Your task to perform on an android device: Search for seafood restaurants on Google Maps Image 0: 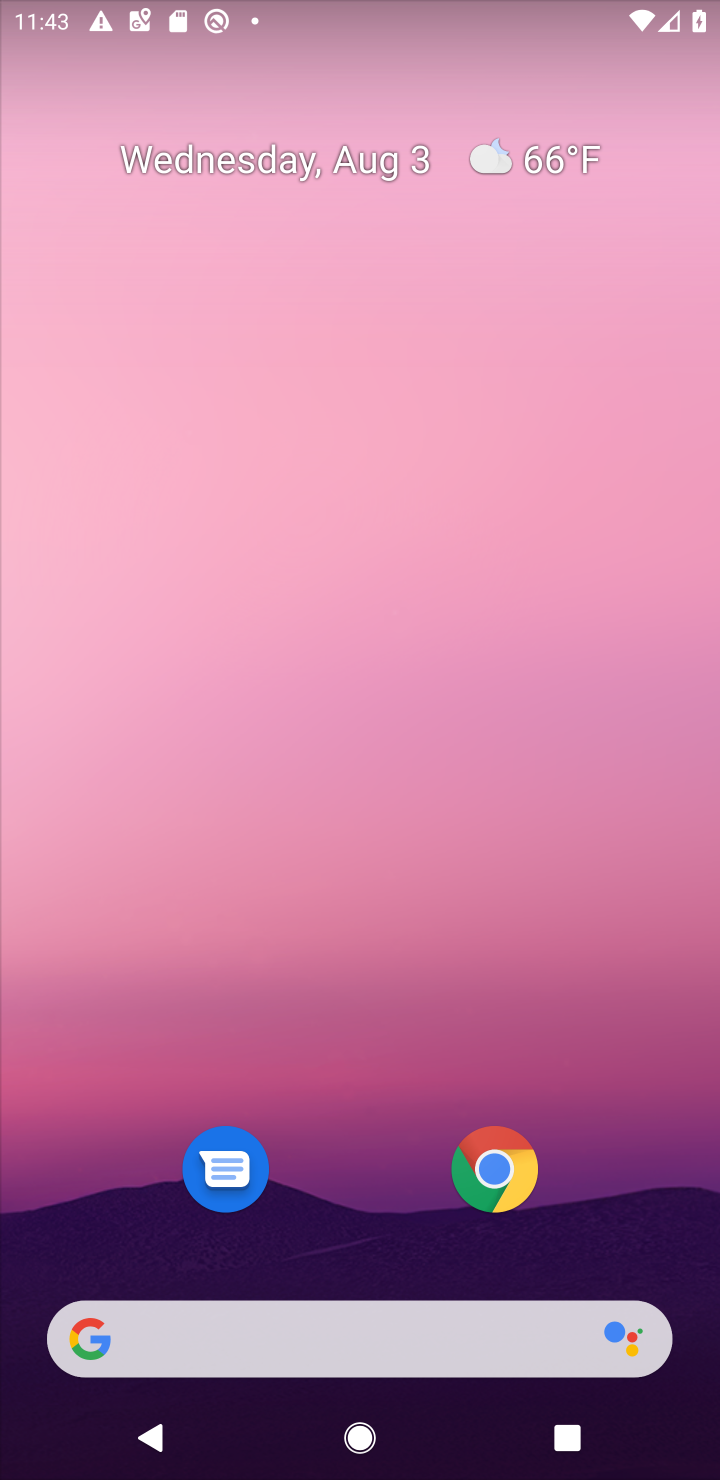
Step 0: drag from (329, 1168) to (258, 18)
Your task to perform on an android device: Search for seafood restaurants on Google Maps Image 1: 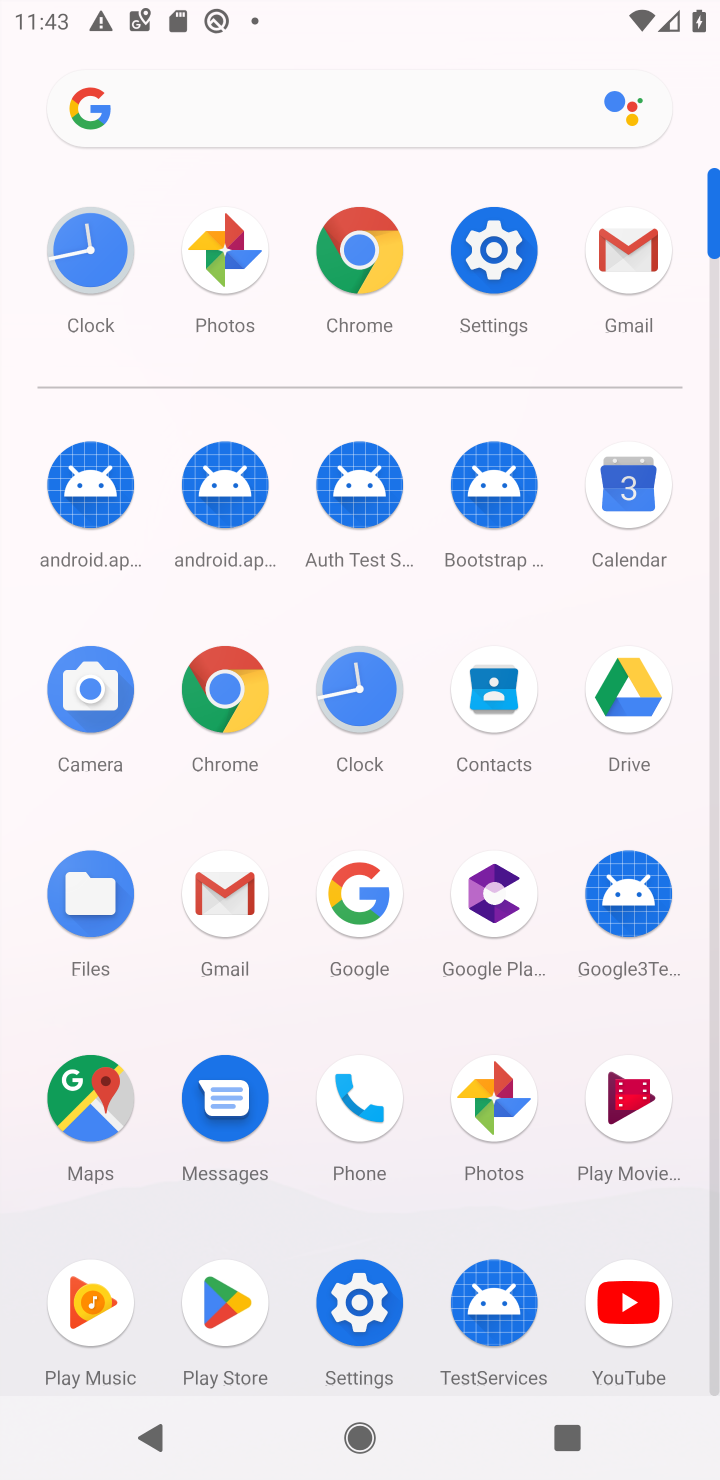
Step 1: click (85, 1106)
Your task to perform on an android device: Search for seafood restaurants on Google Maps Image 2: 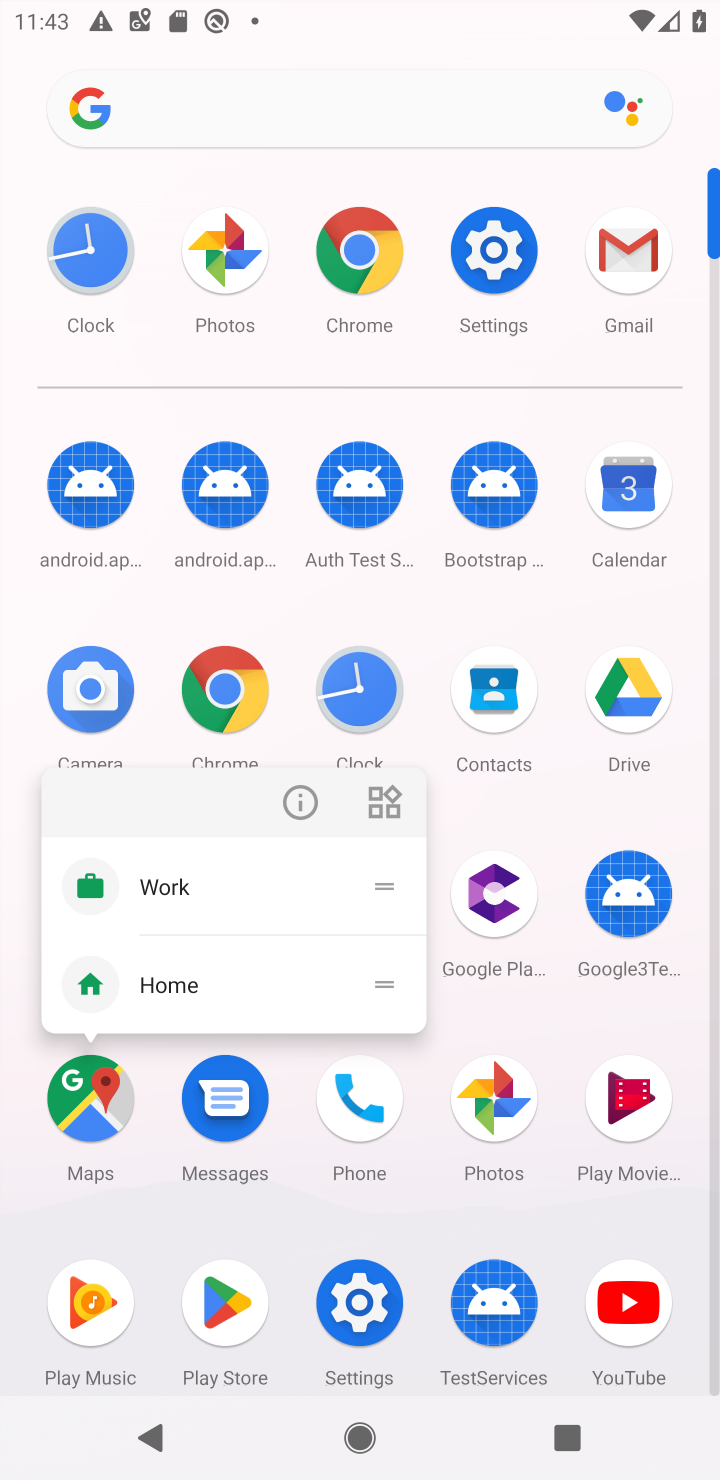
Step 2: click (85, 1104)
Your task to perform on an android device: Search for seafood restaurants on Google Maps Image 3: 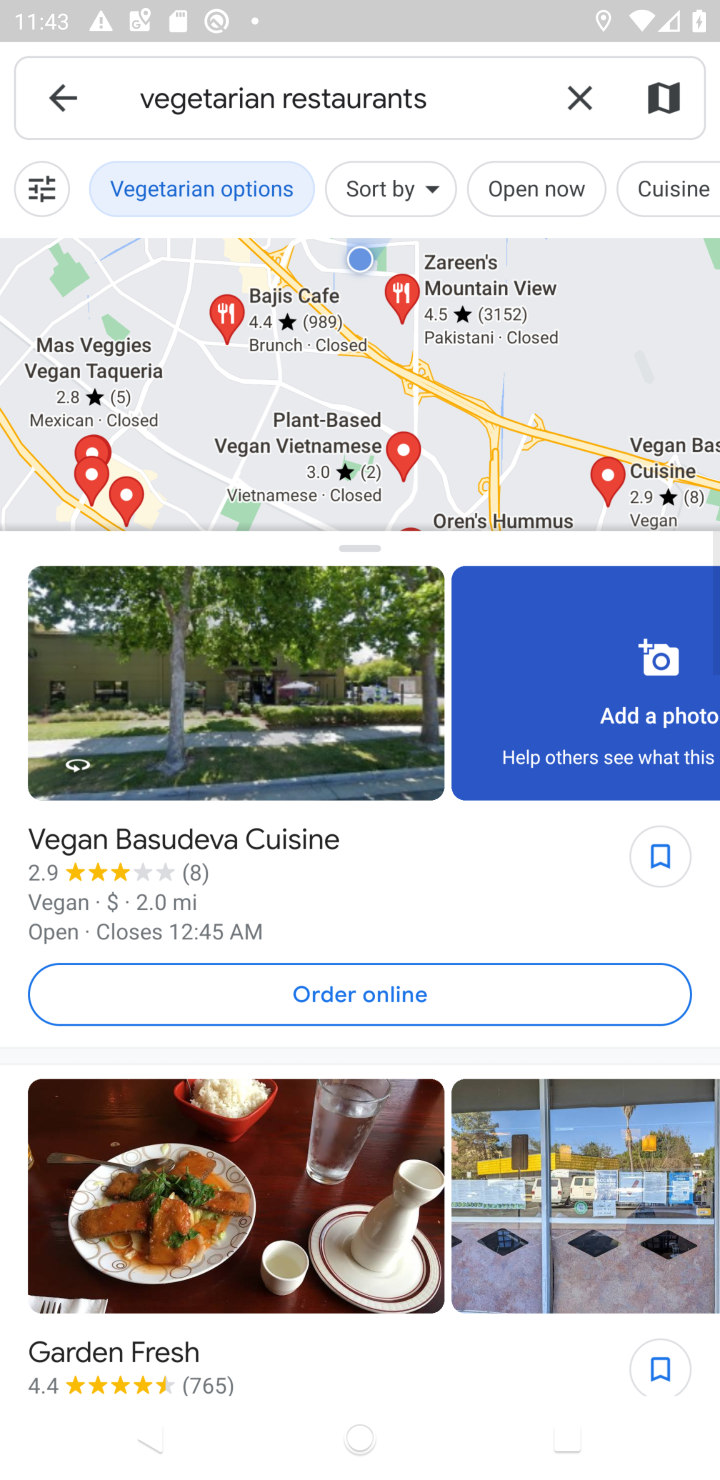
Step 3: click (575, 112)
Your task to perform on an android device: Search for seafood restaurants on Google Maps Image 4: 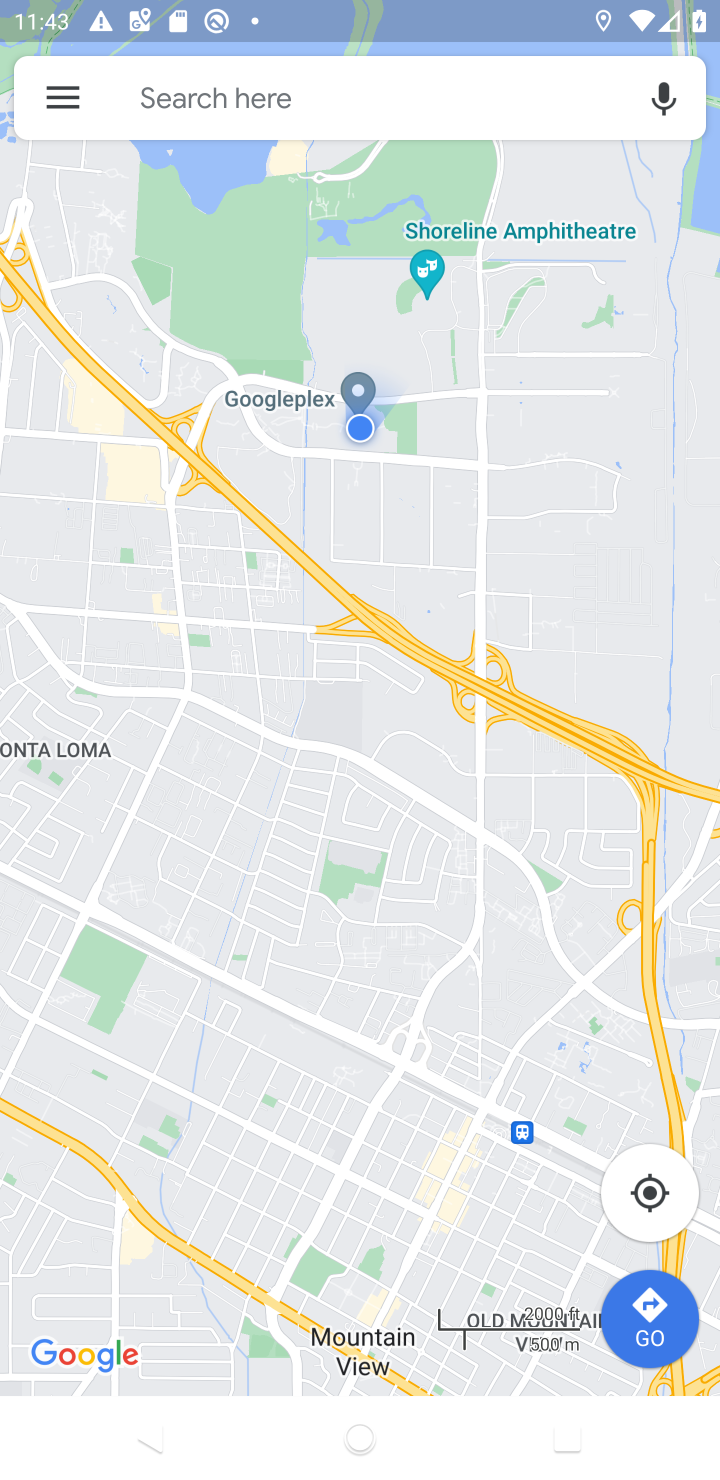
Step 4: click (204, 105)
Your task to perform on an android device: Search for seafood restaurants on Google Maps Image 5: 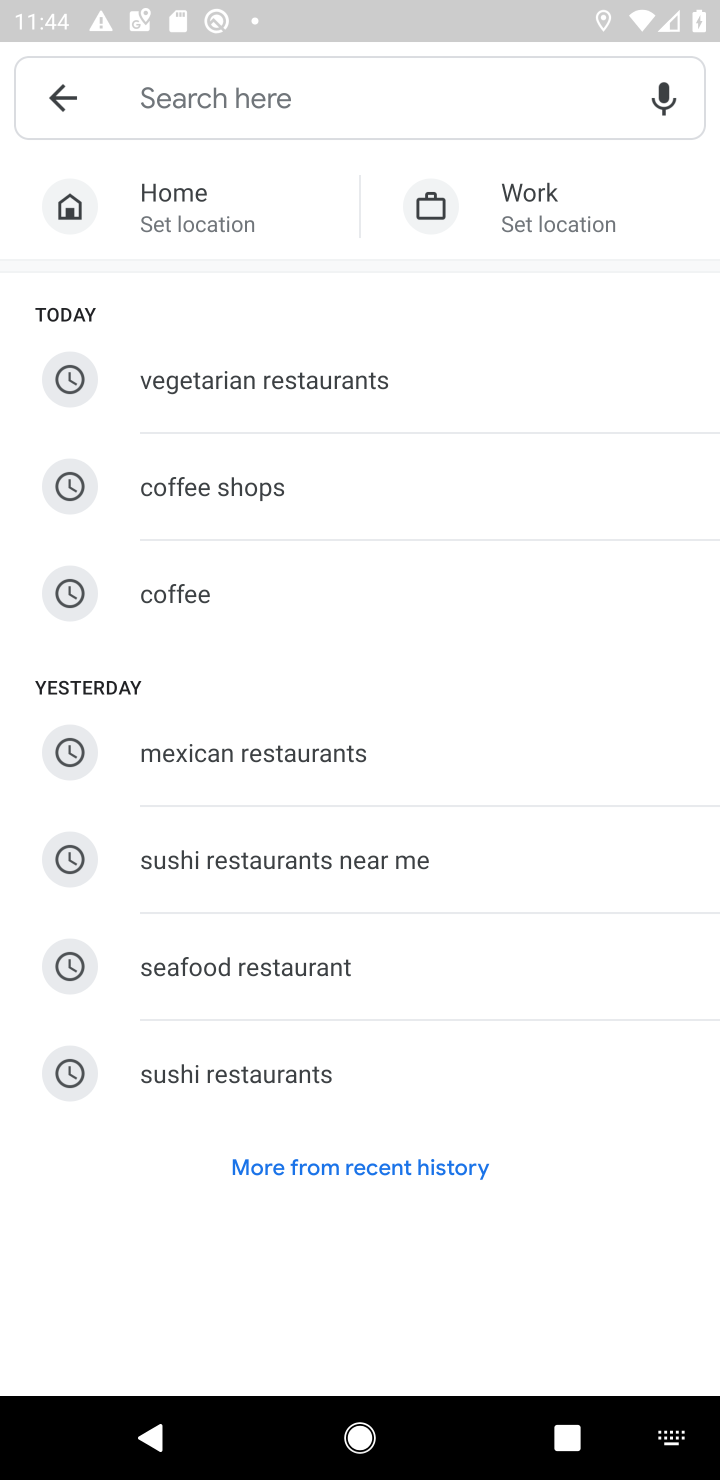
Step 5: click (264, 109)
Your task to perform on an android device: Search for seafood restaurants on Google Maps Image 6: 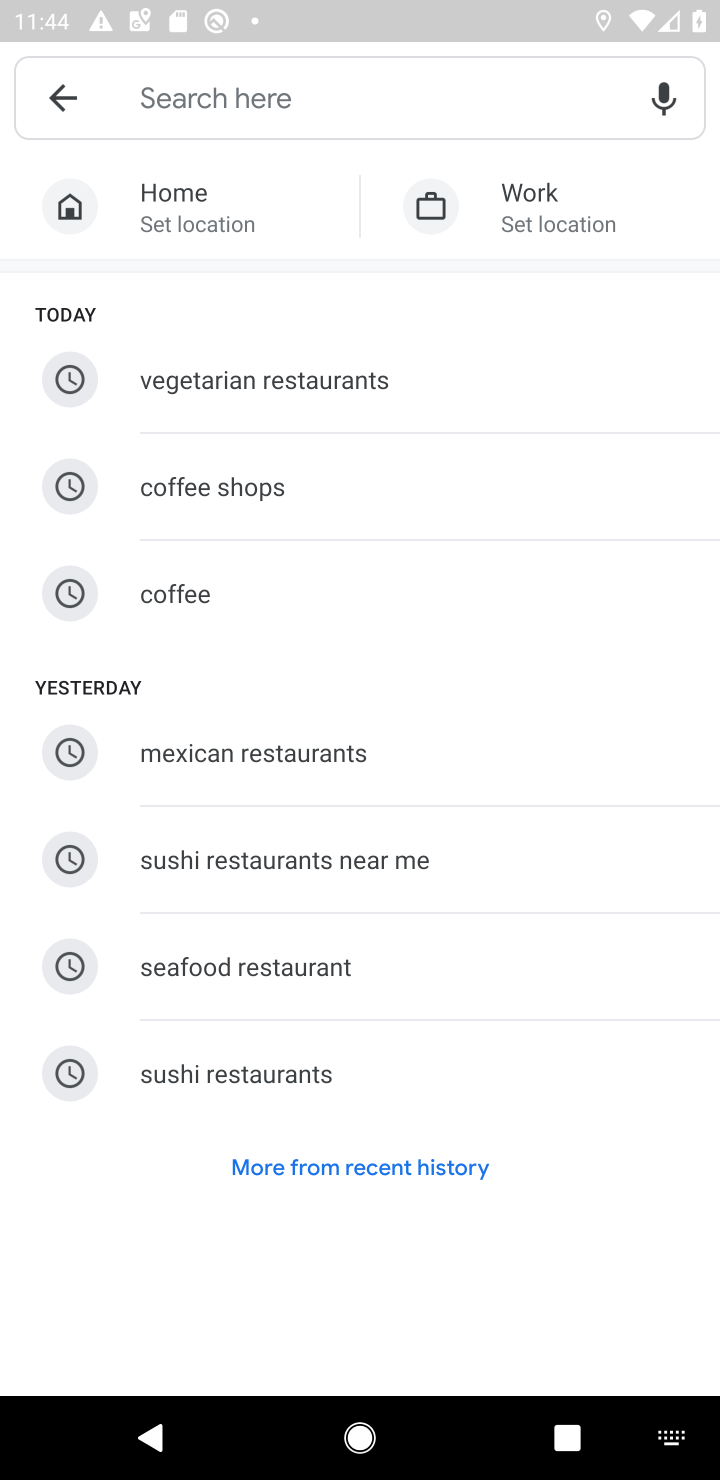
Step 6: type "seafood restaurants"
Your task to perform on an android device: Search for seafood restaurants on Google Maps Image 7: 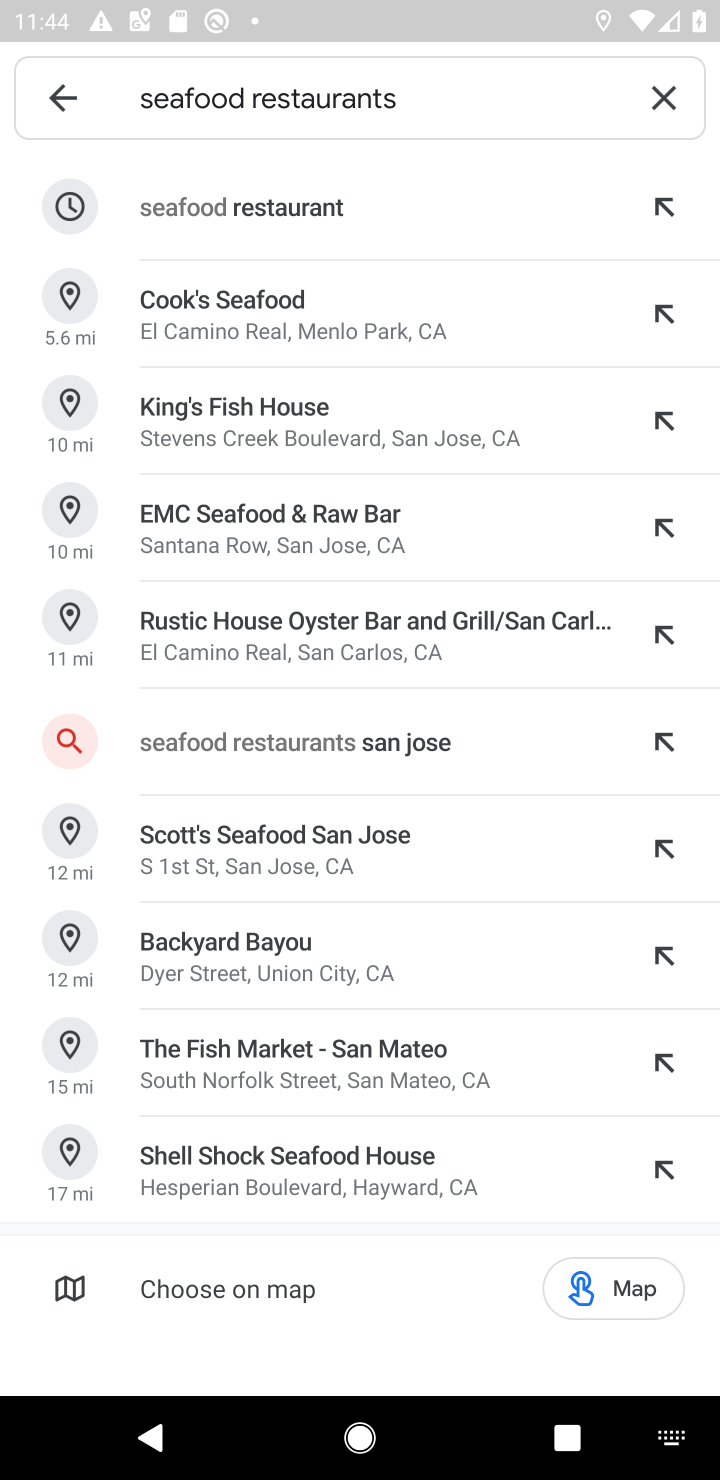
Step 7: click (176, 219)
Your task to perform on an android device: Search for seafood restaurants on Google Maps Image 8: 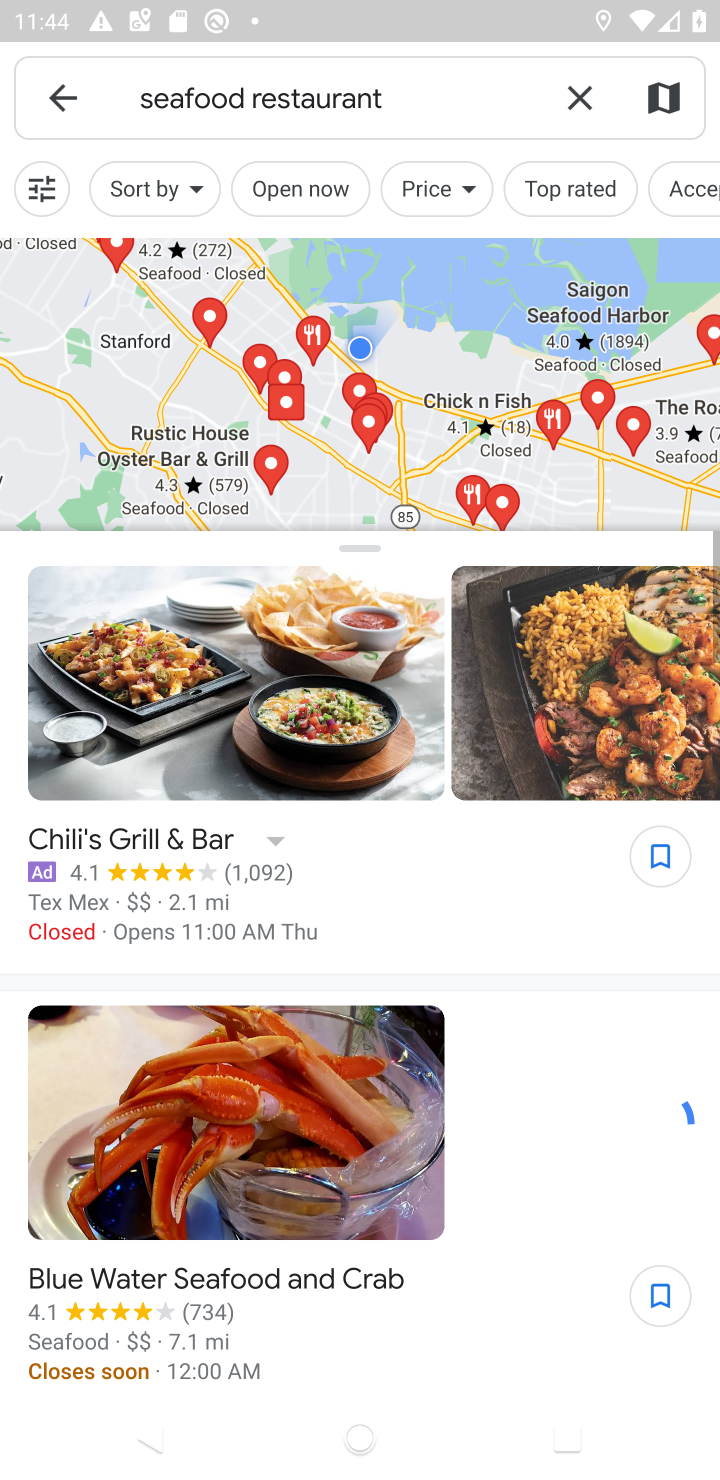
Step 8: task complete